Your task to perform on an android device: turn off notifications settings in the gmail app Image 0: 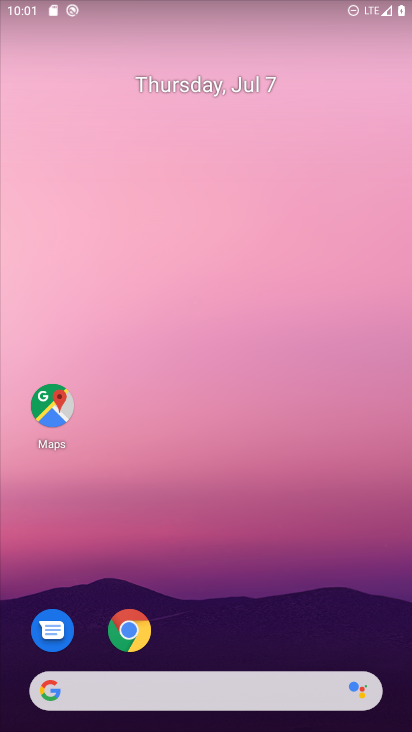
Step 0: drag from (216, 592) to (179, 159)
Your task to perform on an android device: turn off notifications settings in the gmail app Image 1: 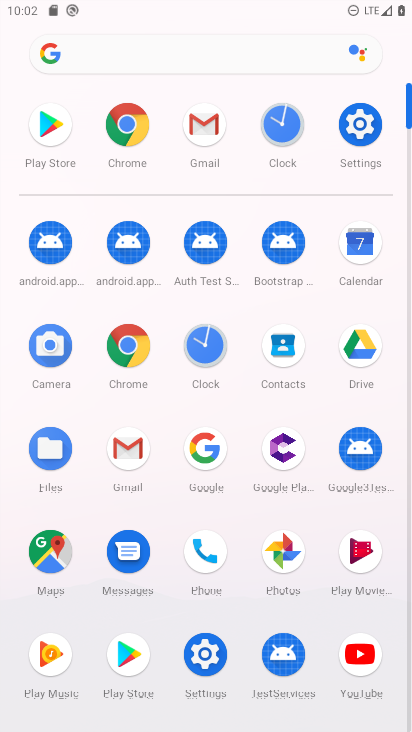
Step 1: click (197, 150)
Your task to perform on an android device: turn off notifications settings in the gmail app Image 2: 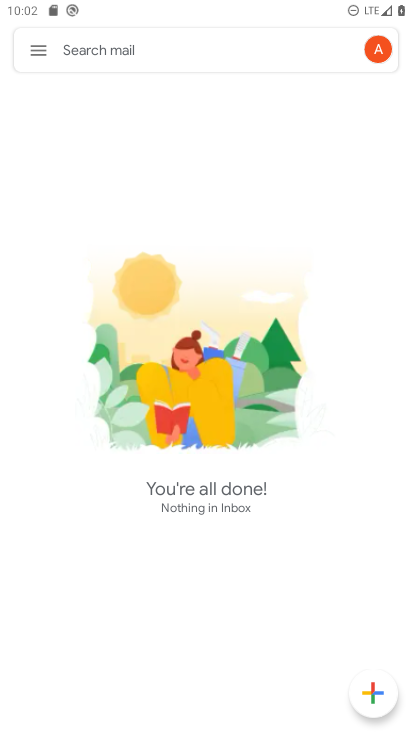
Step 2: click (33, 54)
Your task to perform on an android device: turn off notifications settings in the gmail app Image 3: 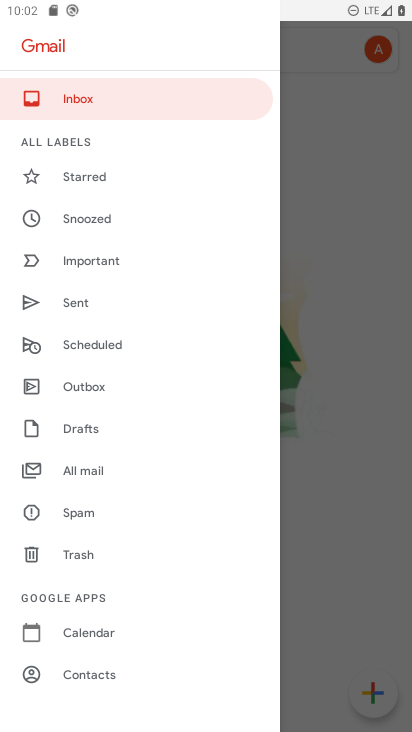
Step 3: drag from (147, 582) to (155, 207)
Your task to perform on an android device: turn off notifications settings in the gmail app Image 4: 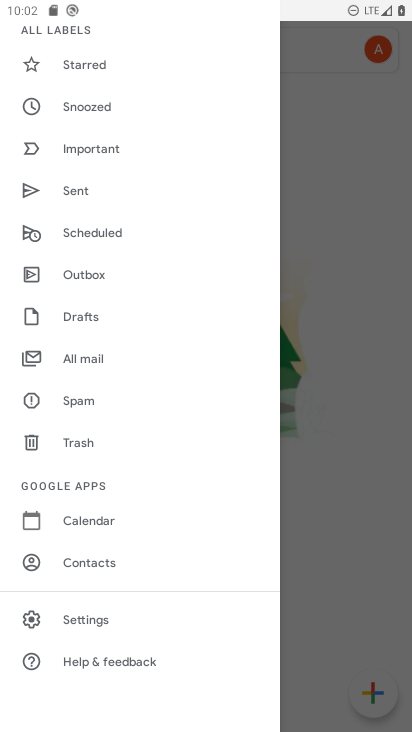
Step 4: click (134, 612)
Your task to perform on an android device: turn off notifications settings in the gmail app Image 5: 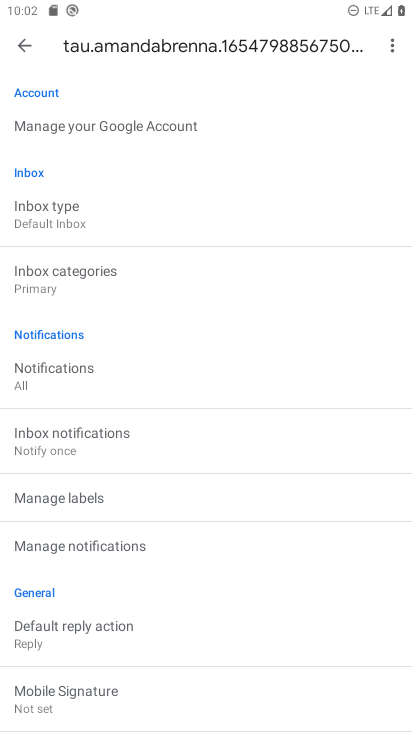
Step 5: click (92, 552)
Your task to perform on an android device: turn off notifications settings in the gmail app Image 6: 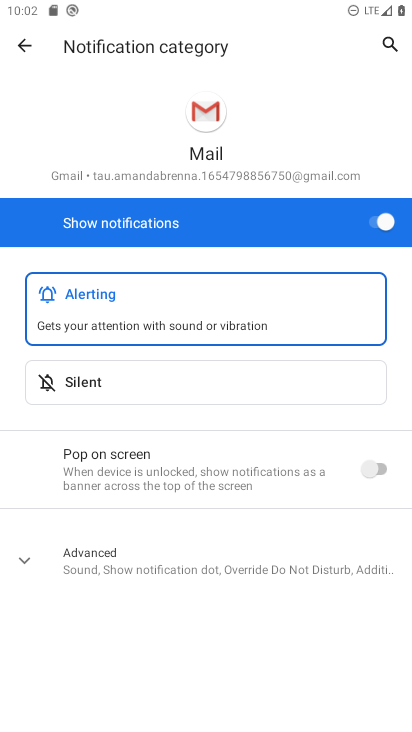
Step 6: click (372, 221)
Your task to perform on an android device: turn off notifications settings in the gmail app Image 7: 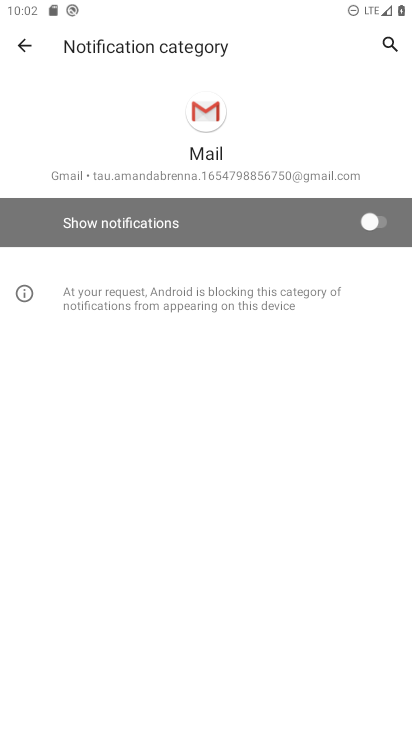
Step 7: task complete